Your task to perform on an android device: add a contact in the contacts app Image 0: 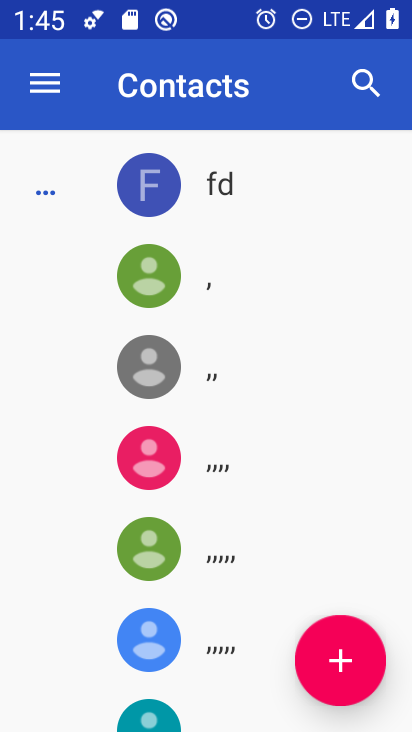
Step 0: click (47, 88)
Your task to perform on an android device: add a contact in the contacts app Image 1: 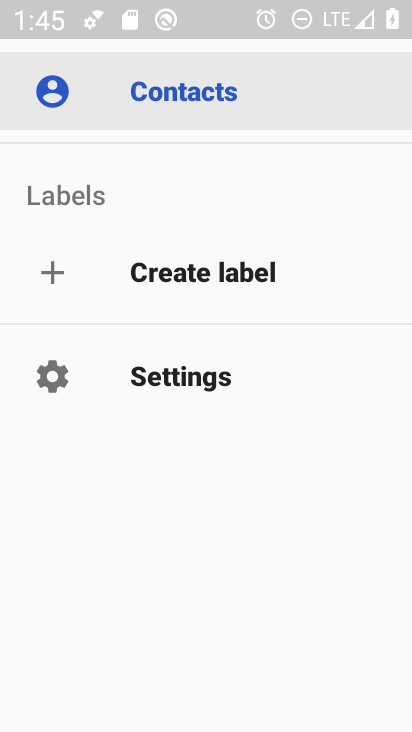
Step 1: press back button
Your task to perform on an android device: add a contact in the contacts app Image 2: 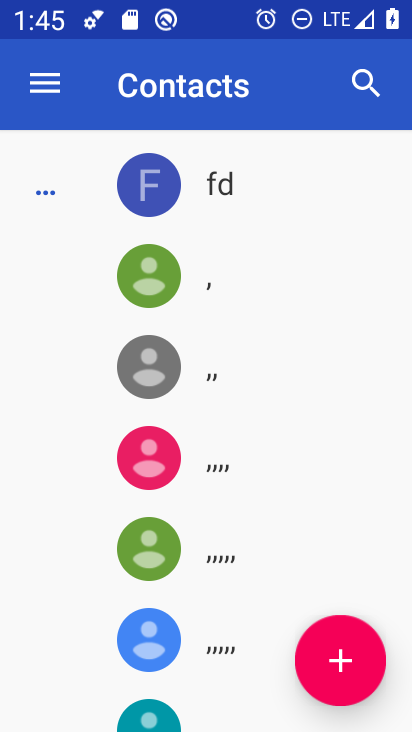
Step 2: click (318, 652)
Your task to perform on an android device: add a contact in the contacts app Image 3: 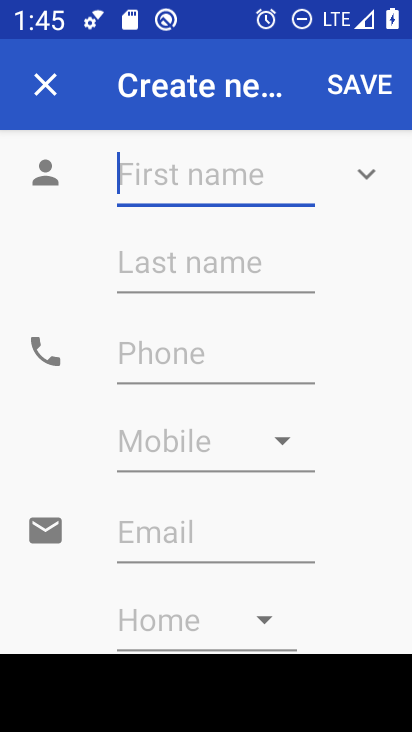
Step 3: click (170, 166)
Your task to perform on an android device: add a contact in the contacts app Image 4: 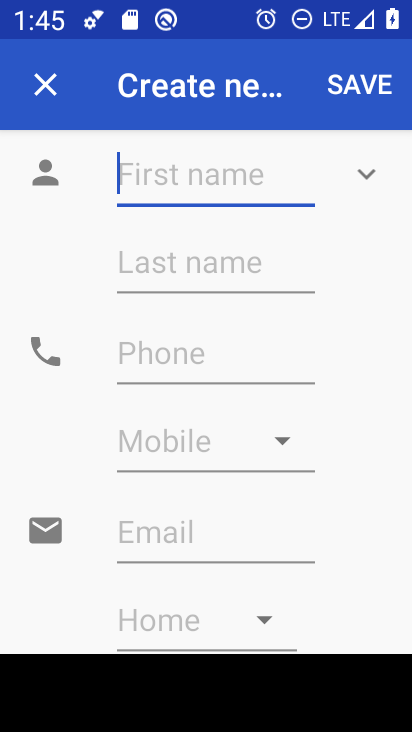
Step 4: type "gfgfgffgffgf"
Your task to perform on an android device: add a contact in the contacts app Image 5: 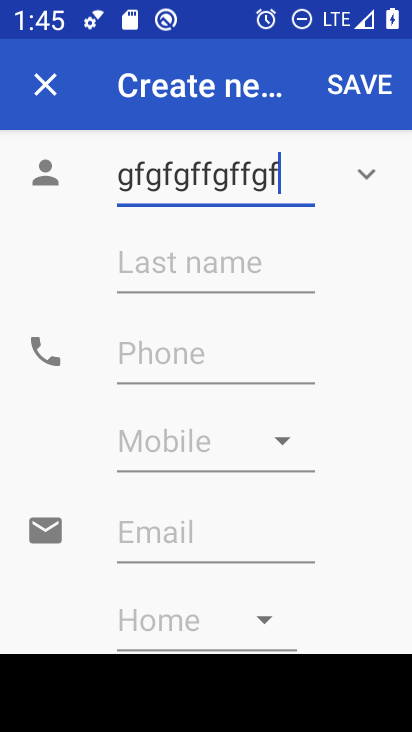
Step 5: click (202, 363)
Your task to perform on an android device: add a contact in the contacts app Image 6: 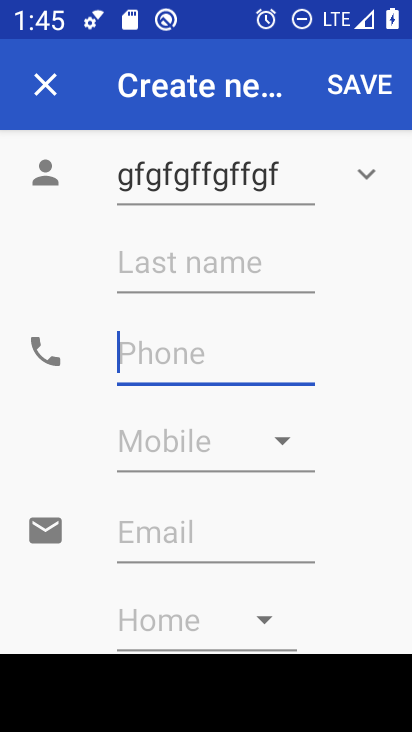
Step 6: type "090909090900088766"
Your task to perform on an android device: add a contact in the contacts app Image 7: 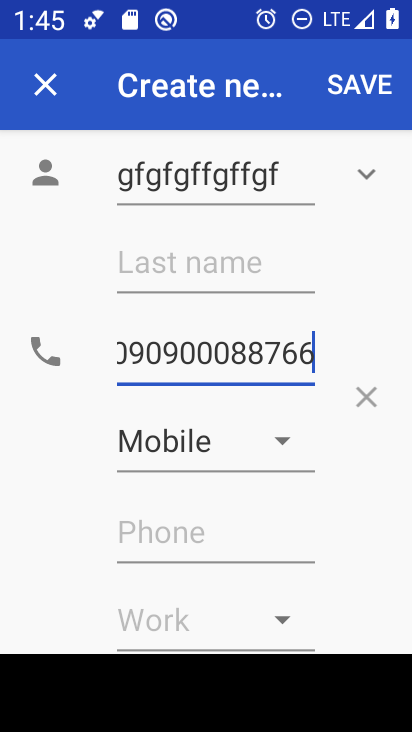
Step 7: click (354, 86)
Your task to perform on an android device: add a contact in the contacts app Image 8: 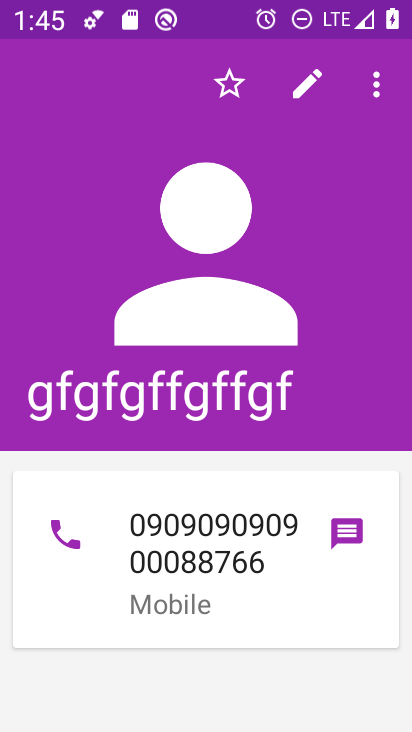
Step 8: task complete